Your task to perform on an android device: Open maps Image 0: 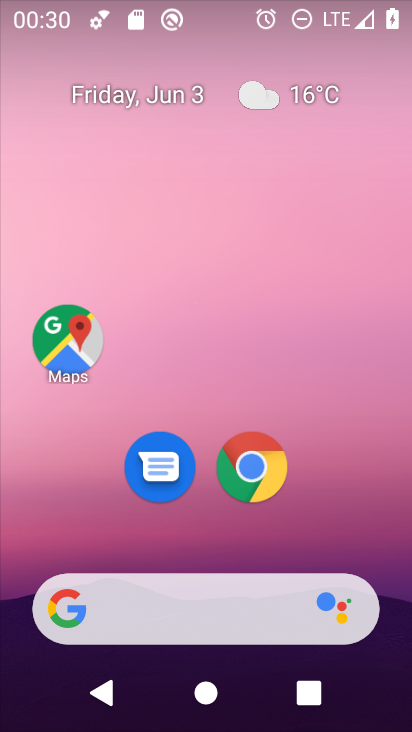
Step 0: click (67, 339)
Your task to perform on an android device: Open maps Image 1: 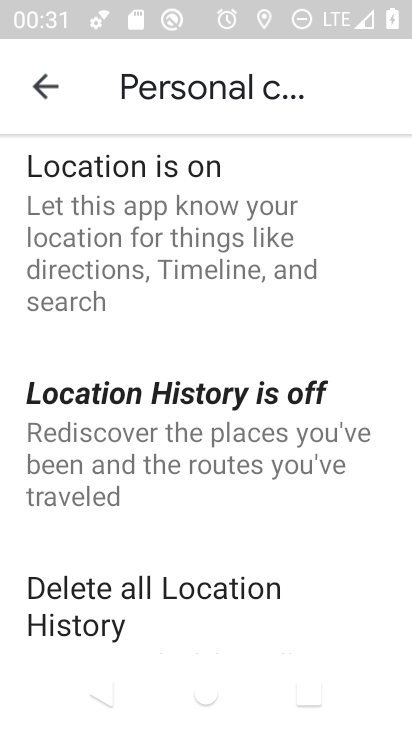
Step 1: task complete